Your task to perform on an android device: Show me the alarms in the clock app Image 0: 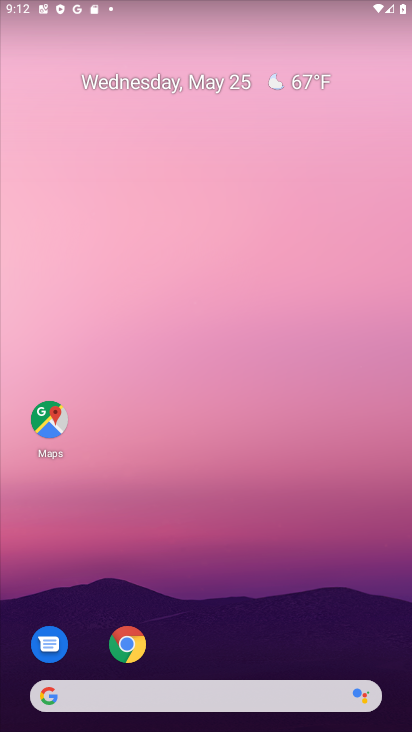
Step 0: drag from (204, 648) to (280, 5)
Your task to perform on an android device: Show me the alarms in the clock app Image 1: 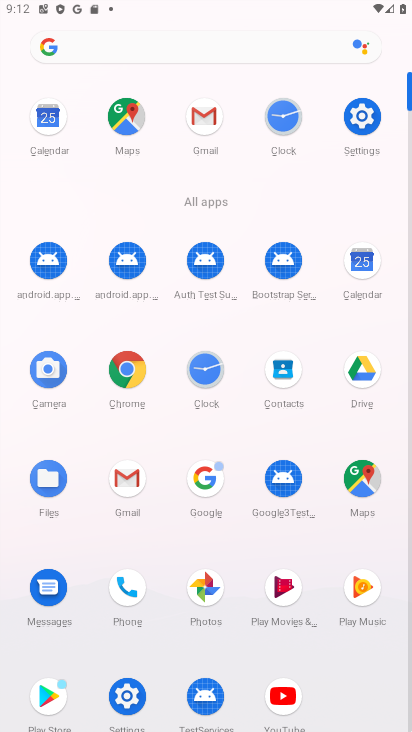
Step 1: click (202, 360)
Your task to perform on an android device: Show me the alarms in the clock app Image 2: 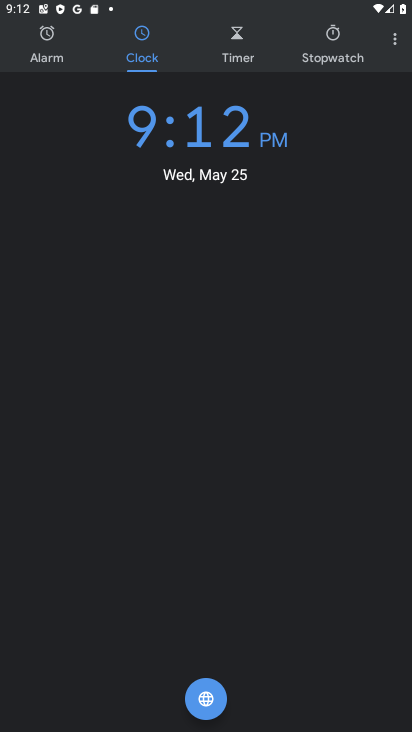
Step 2: click (50, 40)
Your task to perform on an android device: Show me the alarms in the clock app Image 3: 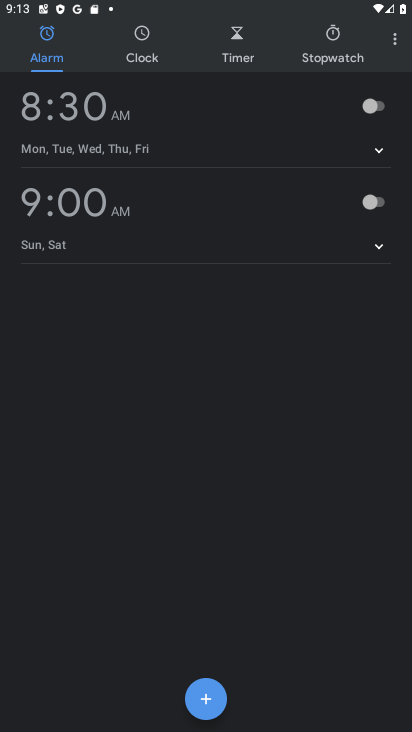
Step 3: click (374, 107)
Your task to perform on an android device: Show me the alarms in the clock app Image 4: 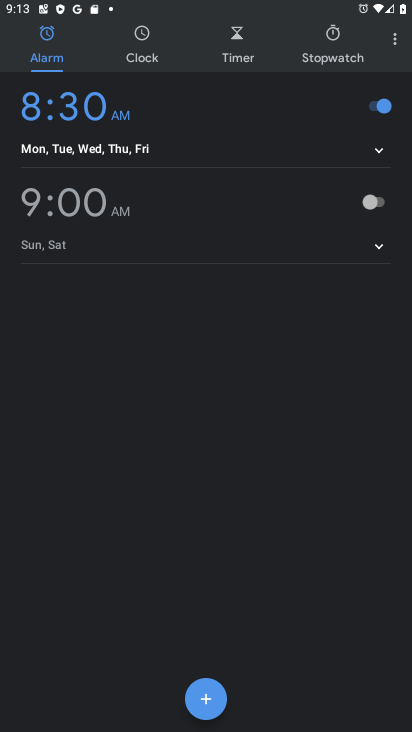
Step 4: click (376, 202)
Your task to perform on an android device: Show me the alarms in the clock app Image 5: 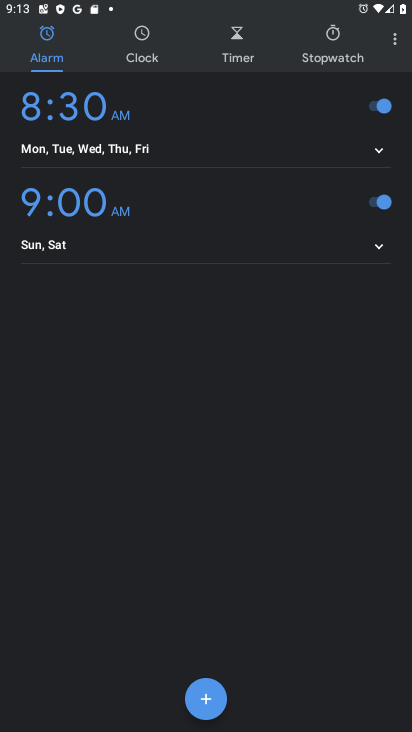
Step 5: task complete